Your task to perform on an android device: toggle location history Image 0: 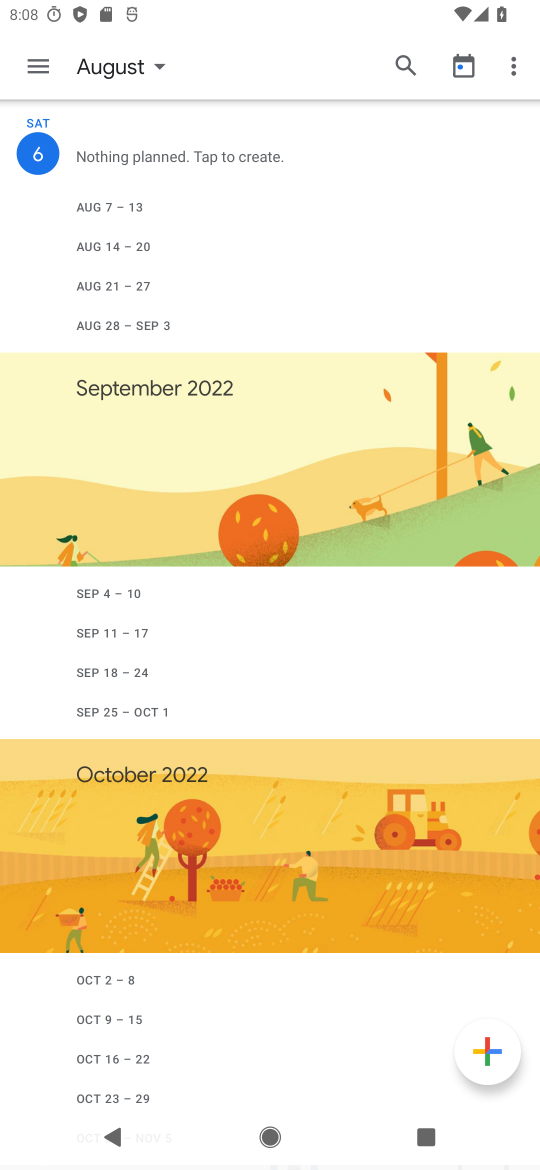
Step 0: press home button
Your task to perform on an android device: toggle location history Image 1: 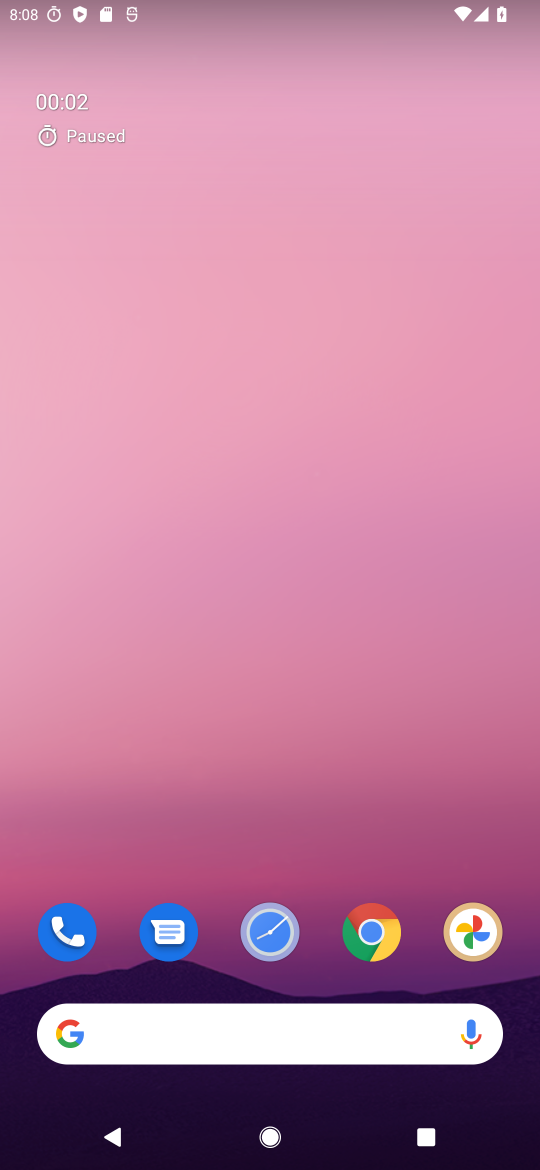
Step 1: drag from (285, 966) to (352, 148)
Your task to perform on an android device: toggle location history Image 2: 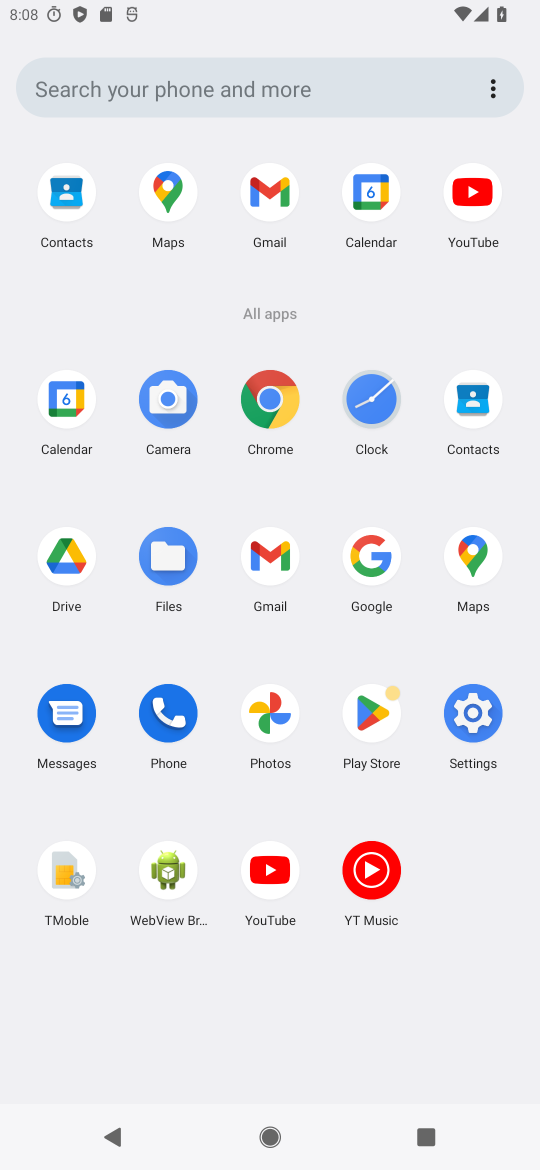
Step 2: click (466, 711)
Your task to perform on an android device: toggle location history Image 3: 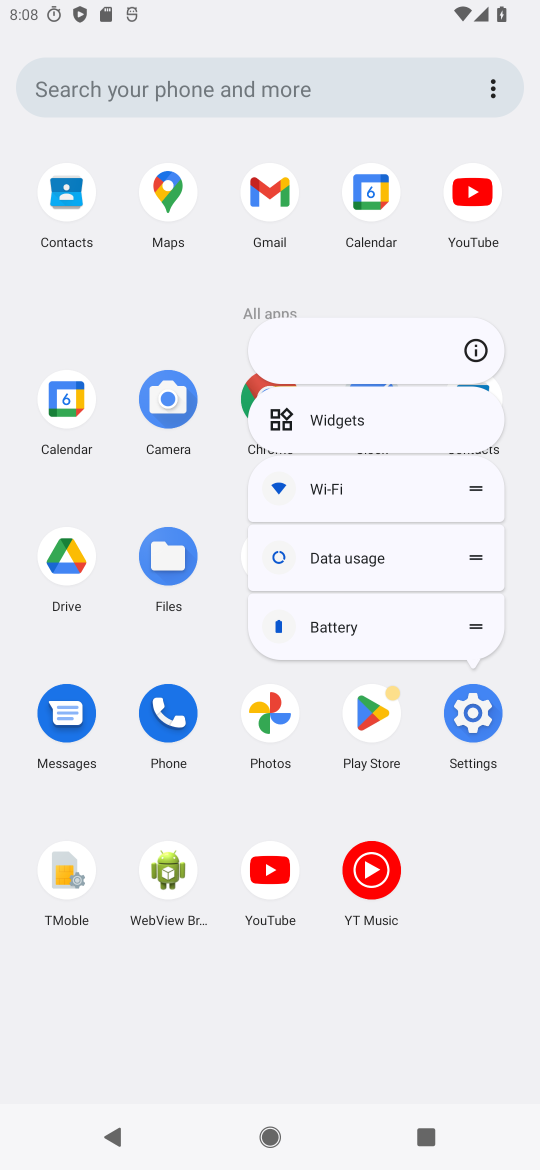
Step 3: click (478, 727)
Your task to perform on an android device: toggle location history Image 4: 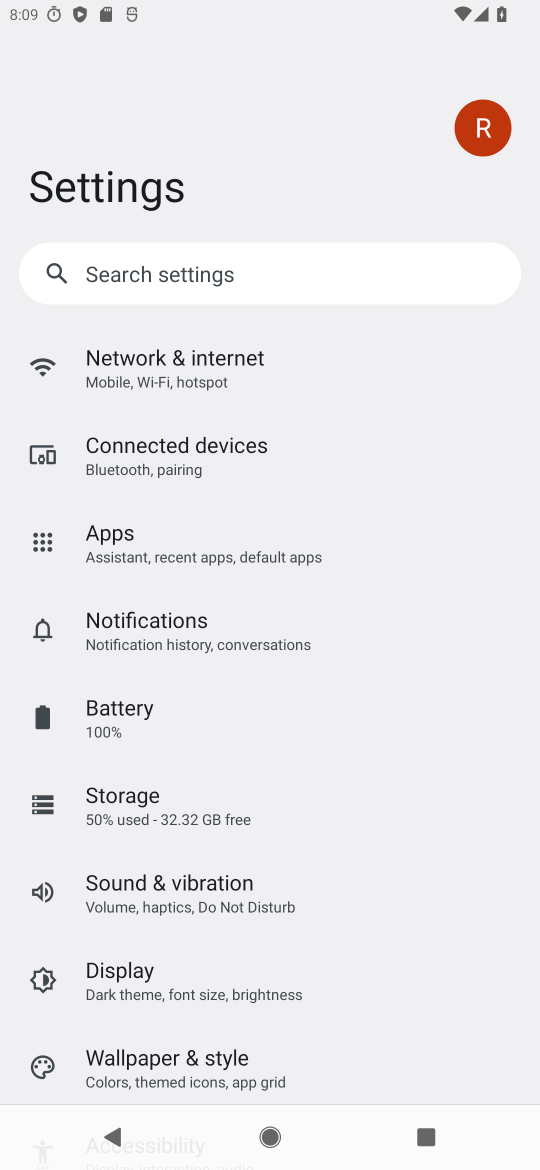
Step 4: drag from (274, 818) to (391, 282)
Your task to perform on an android device: toggle location history Image 5: 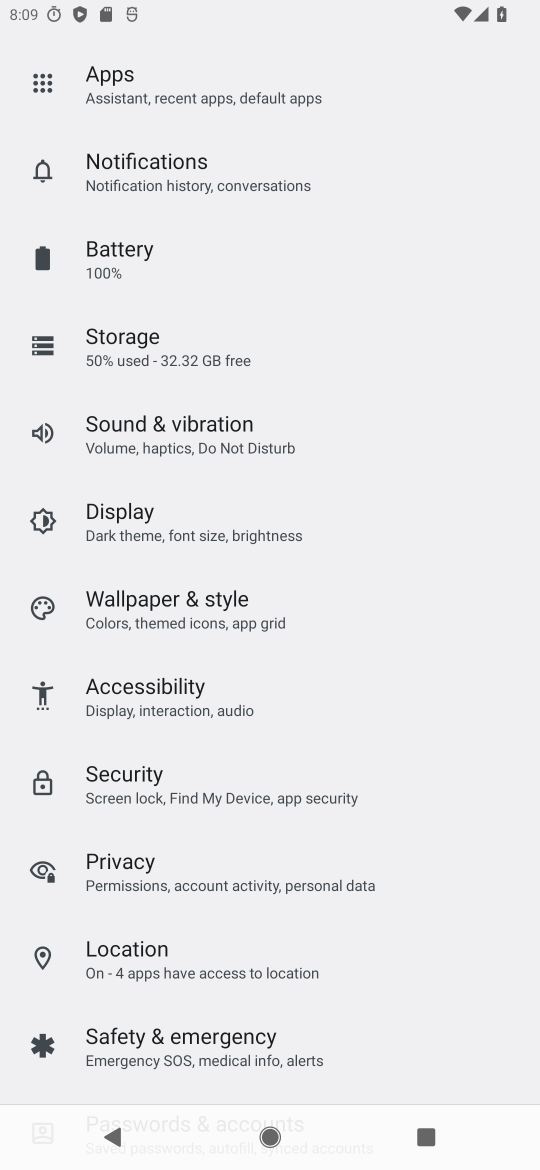
Step 5: click (159, 955)
Your task to perform on an android device: toggle location history Image 6: 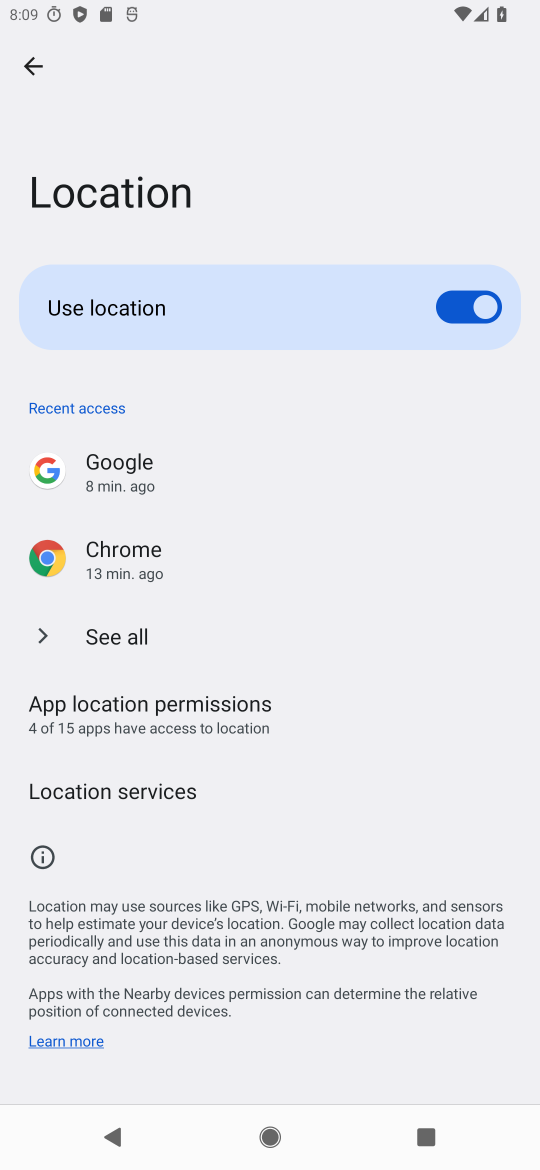
Step 6: click (138, 788)
Your task to perform on an android device: toggle location history Image 7: 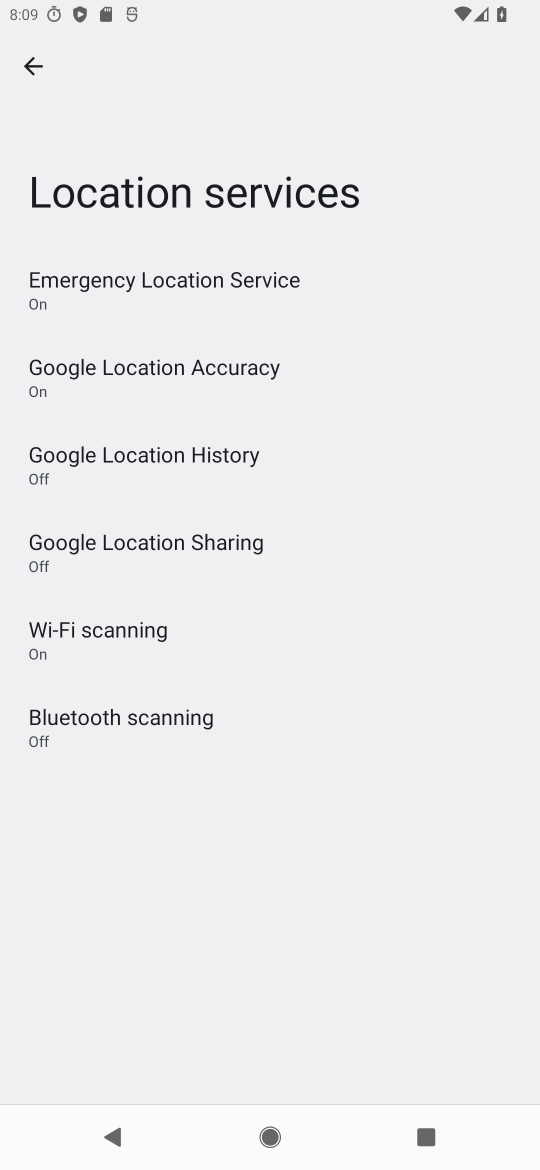
Step 7: click (179, 461)
Your task to perform on an android device: toggle location history Image 8: 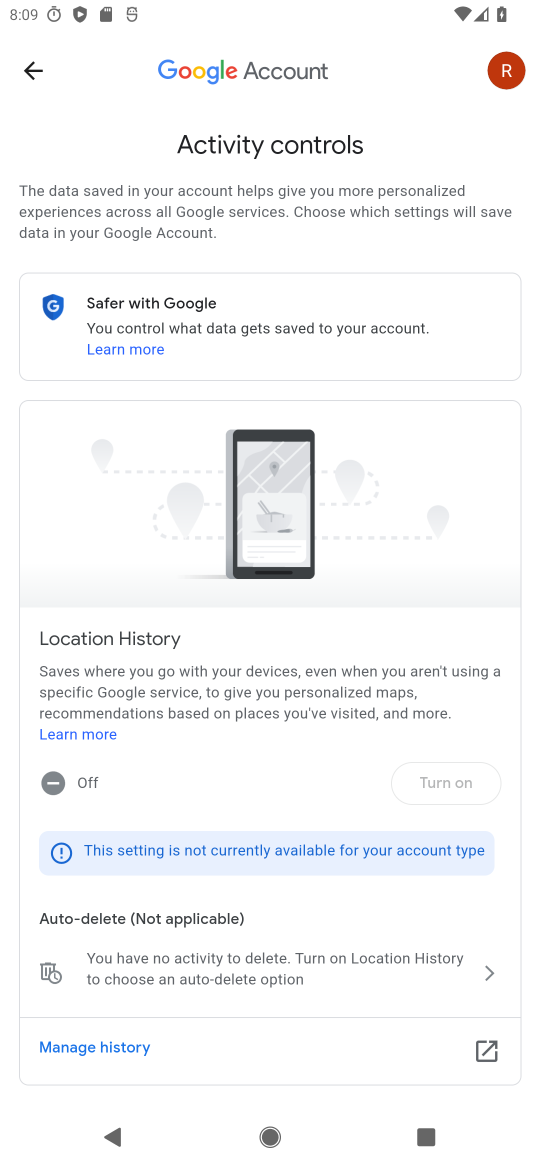
Step 8: task complete